Your task to perform on an android device: make emails show in primary in the gmail app Image 0: 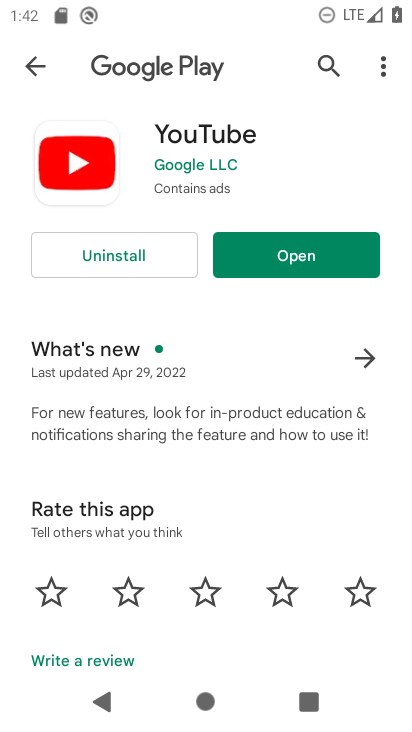
Step 0: press home button
Your task to perform on an android device: make emails show in primary in the gmail app Image 1: 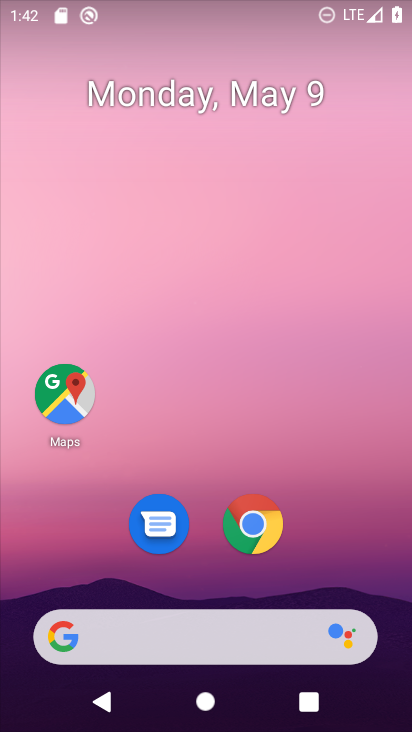
Step 1: drag from (176, 467) to (216, 2)
Your task to perform on an android device: make emails show in primary in the gmail app Image 2: 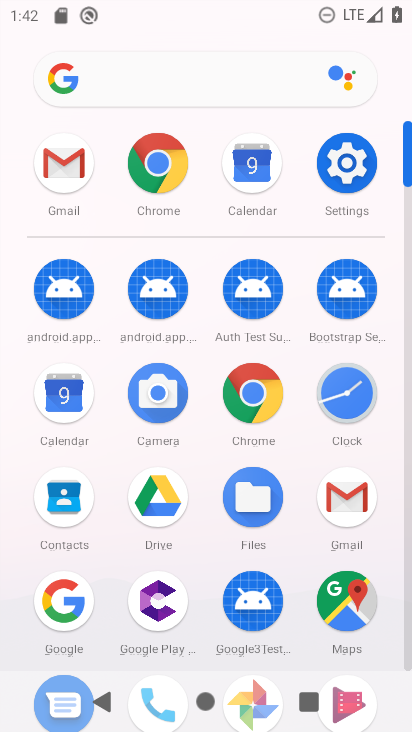
Step 2: click (72, 165)
Your task to perform on an android device: make emails show in primary in the gmail app Image 3: 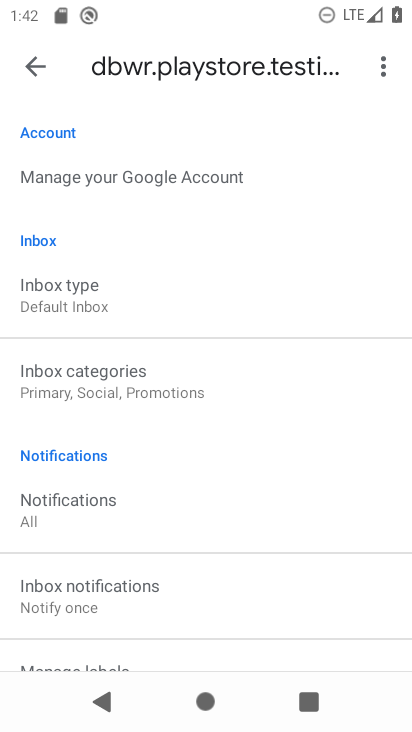
Step 3: click (85, 366)
Your task to perform on an android device: make emails show in primary in the gmail app Image 4: 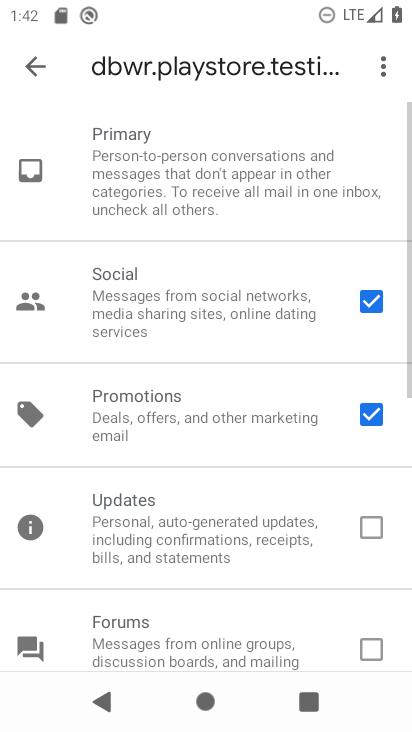
Step 4: click (373, 410)
Your task to perform on an android device: make emails show in primary in the gmail app Image 5: 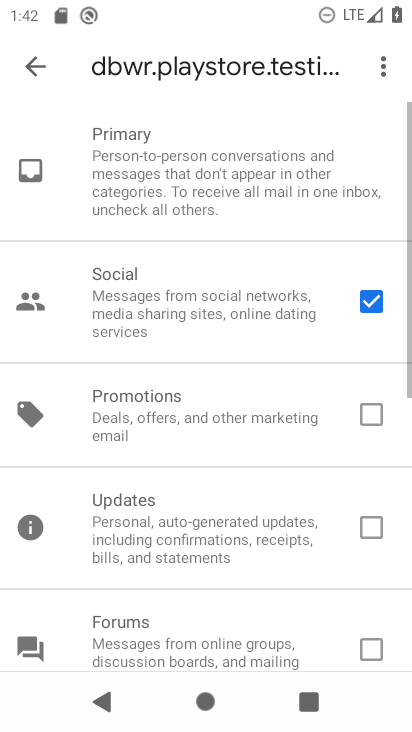
Step 5: click (373, 299)
Your task to perform on an android device: make emails show in primary in the gmail app Image 6: 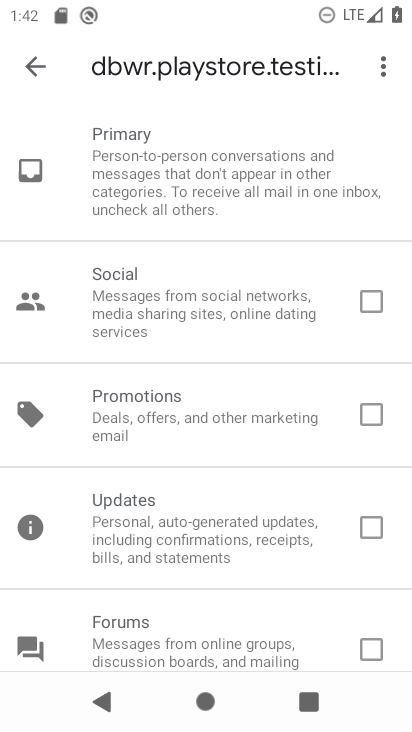
Step 6: click (32, 52)
Your task to perform on an android device: make emails show in primary in the gmail app Image 7: 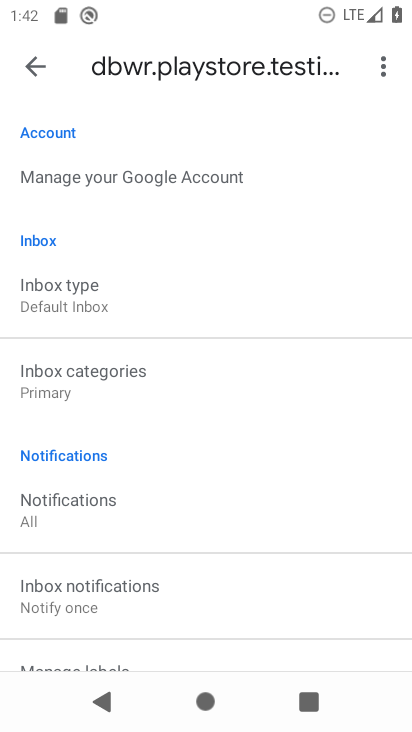
Step 7: task complete